Your task to perform on an android device: Go to network settings Image 0: 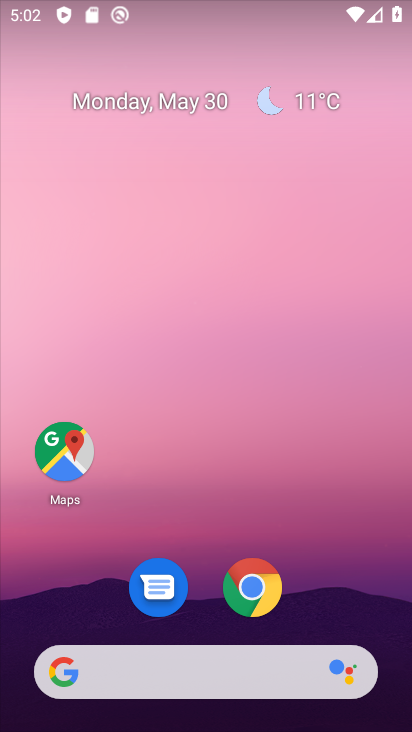
Step 0: drag from (316, 560) to (218, 15)
Your task to perform on an android device: Go to network settings Image 1: 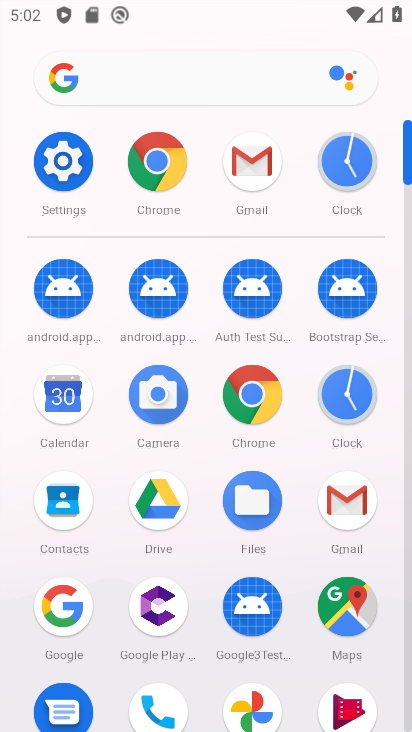
Step 1: drag from (21, 571) to (18, 259)
Your task to perform on an android device: Go to network settings Image 2: 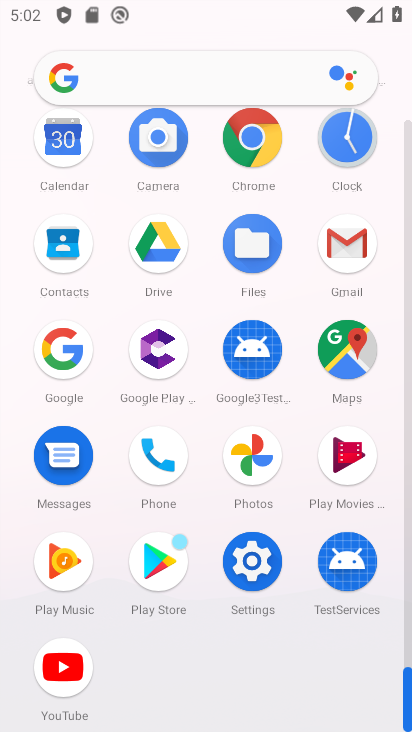
Step 2: click (247, 559)
Your task to perform on an android device: Go to network settings Image 3: 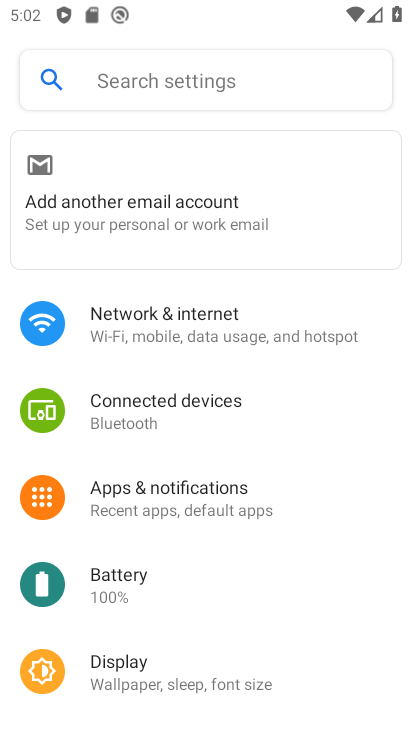
Step 3: drag from (225, 630) to (267, 280)
Your task to perform on an android device: Go to network settings Image 4: 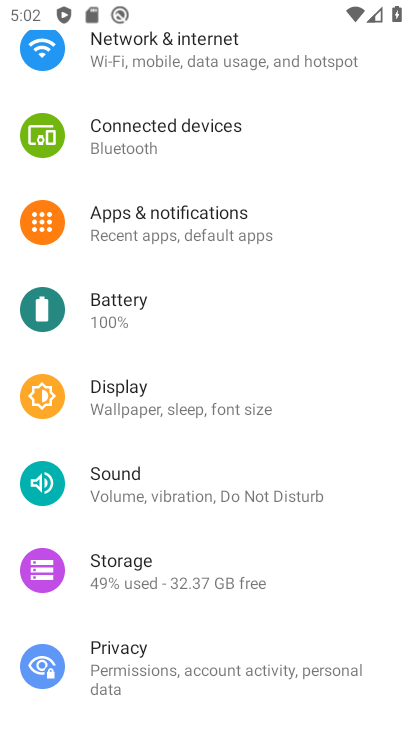
Step 4: click (211, 74)
Your task to perform on an android device: Go to network settings Image 5: 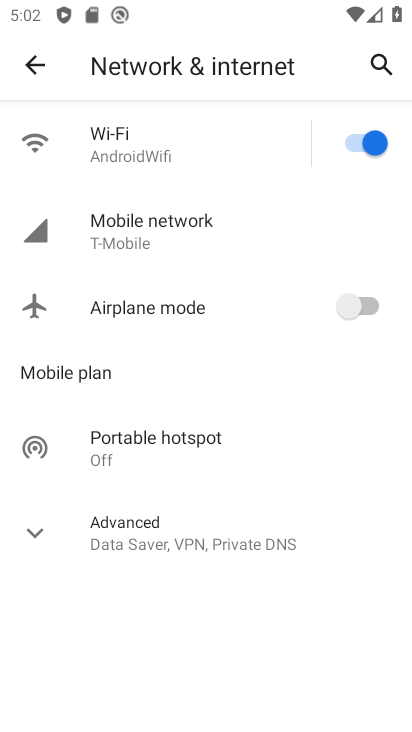
Step 5: click (47, 528)
Your task to perform on an android device: Go to network settings Image 6: 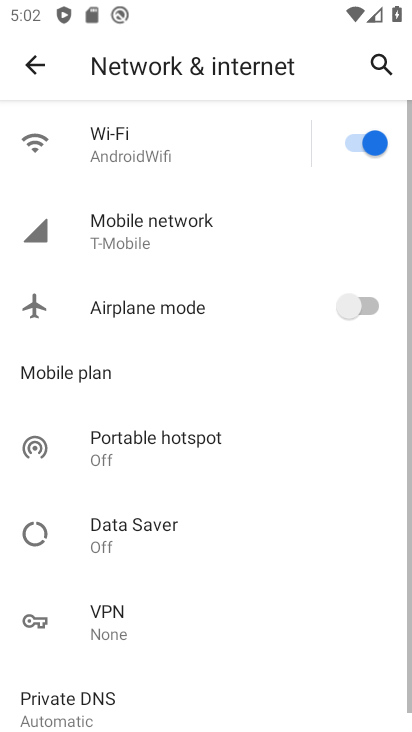
Step 6: task complete